Your task to perform on an android device: install app "Adobe Acrobat Reader" Image 0: 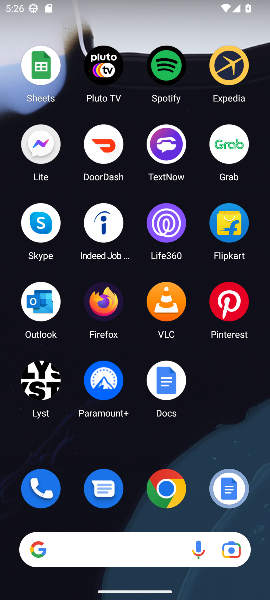
Step 0: press home button
Your task to perform on an android device: install app "Adobe Acrobat Reader" Image 1: 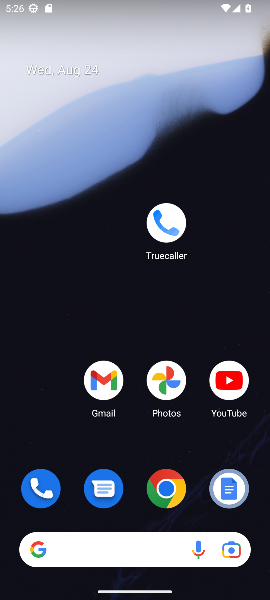
Step 1: drag from (139, 455) to (125, 33)
Your task to perform on an android device: install app "Adobe Acrobat Reader" Image 2: 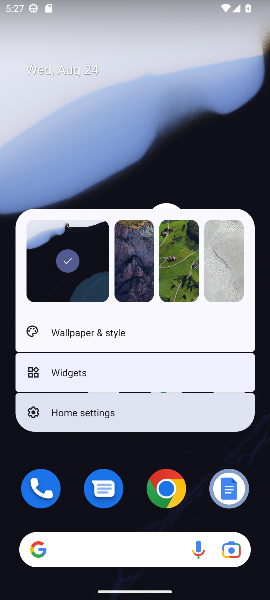
Step 2: click (100, 110)
Your task to perform on an android device: install app "Adobe Acrobat Reader" Image 3: 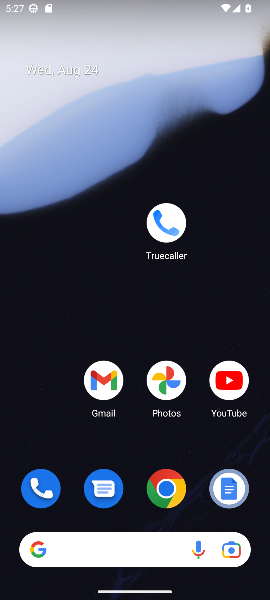
Step 3: drag from (130, 518) to (71, 125)
Your task to perform on an android device: install app "Adobe Acrobat Reader" Image 4: 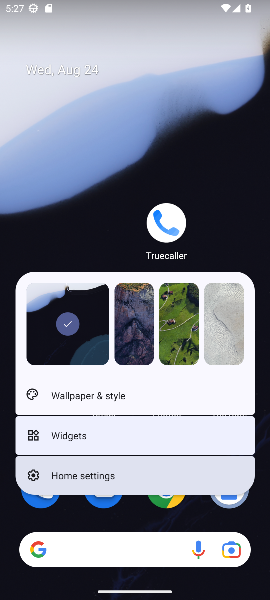
Step 4: click (71, 125)
Your task to perform on an android device: install app "Adobe Acrobat Reader" Image 5: 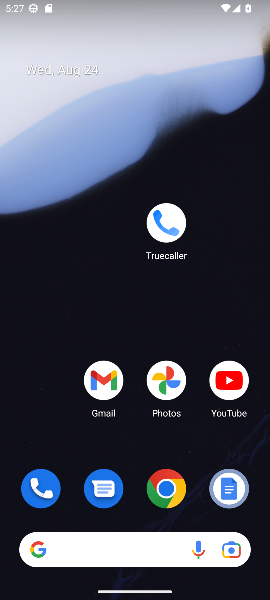
Step 5: drag from (135, 515) to (167, 35)
Your task to perform on an android device: install app "Adobe Acrobat Reader" Image 6: 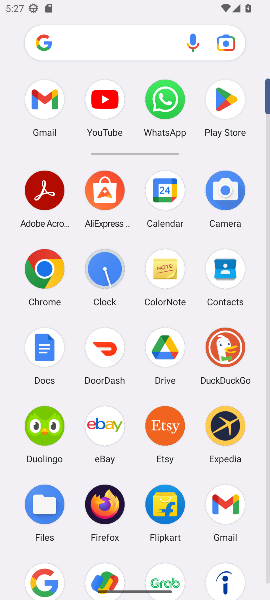
Step 6: click (39, 196)
Your task to perform on an android device: install app "Adobe Acrobat Reader" Image 7: 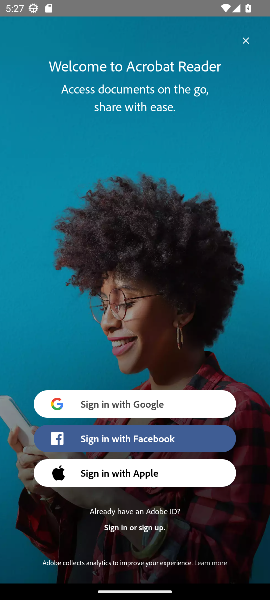
Step 7: task complete